Your task to perform on an android device: Is it going to rain tomorrow? Image 0: 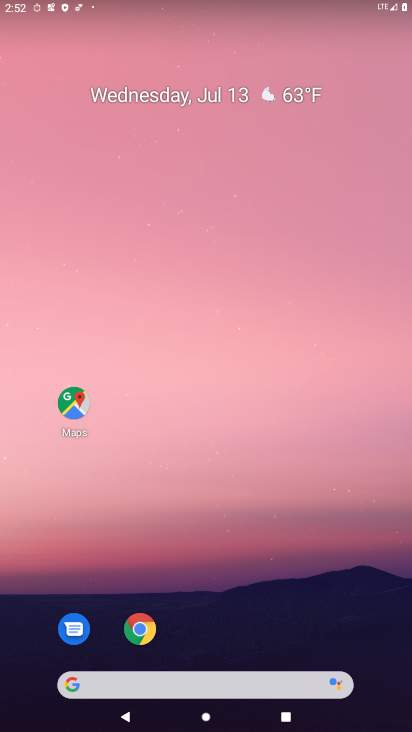
Step 0: click (396, 460)
Your task to perform on an android device: Is it going to rain tomorrow? Image 1: 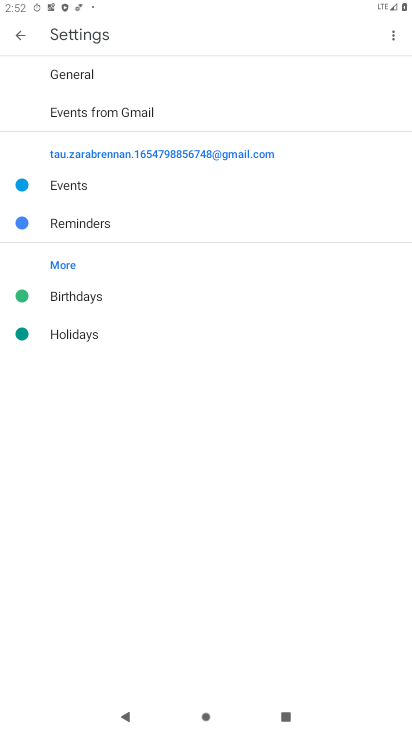
Step 1: click (362, 9)
Your task to perform on an android device: Is it going to rain tomorrow? Image 2: 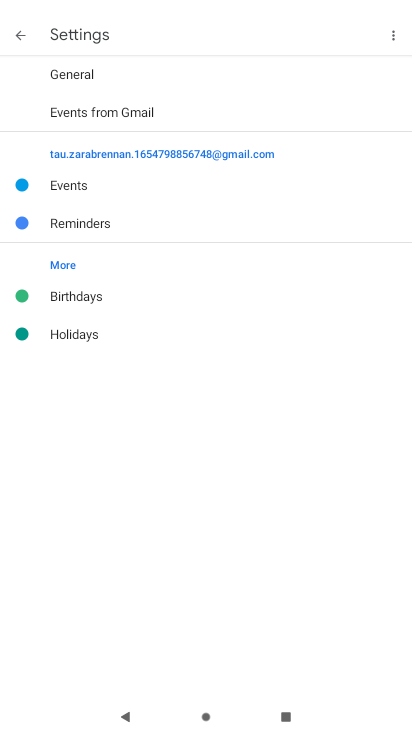
Step 2: press home button
Your task to perform on an android device: Is it going to rain tomorrow? Image 3: 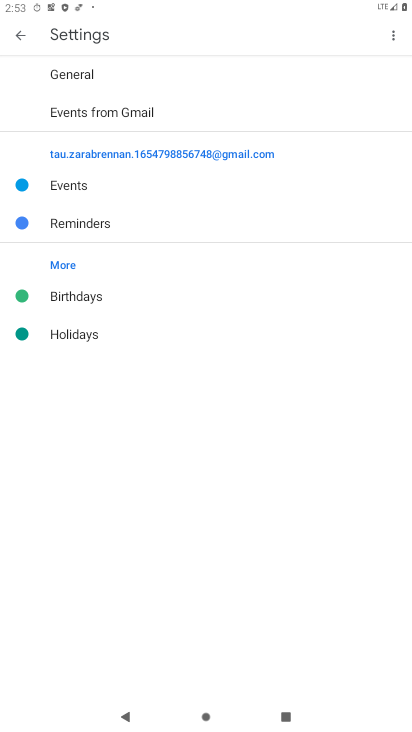
Step 3: press home button
Your task to perform on an android device: Is it going to rain tomorrow? Image 4: 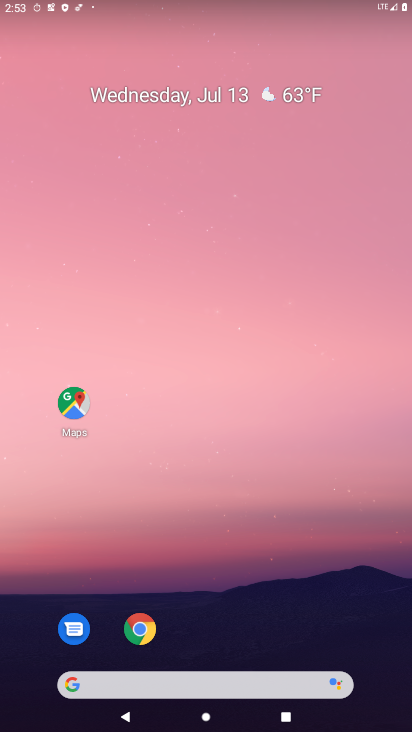
Step 4: drag from (176, 635) to (278, 92)
Your task to perform on an android device: Is it going to rain tomorrow? Image 5: 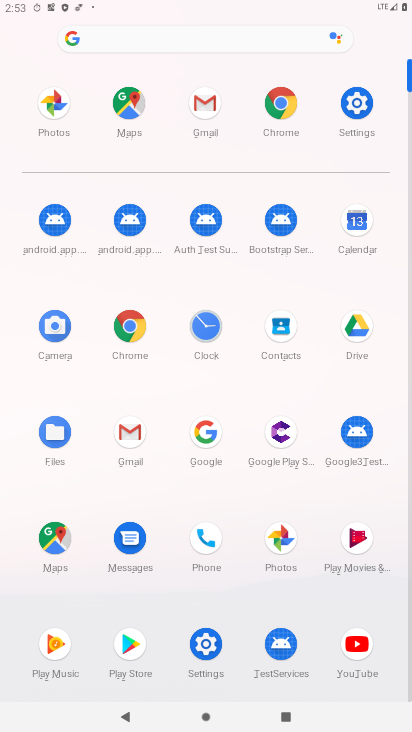
Step 5: click (197, 32)
Your task to perform on an android device: Is it going to rain tomorrow? Image 6: 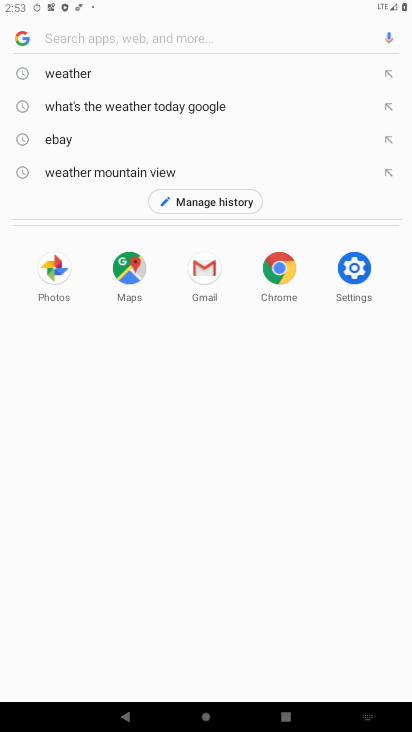
Step 6: type "is it going to rain tomorrow"
Your task to perform on an android device: Is it going to rain tomorrow? Image 7: 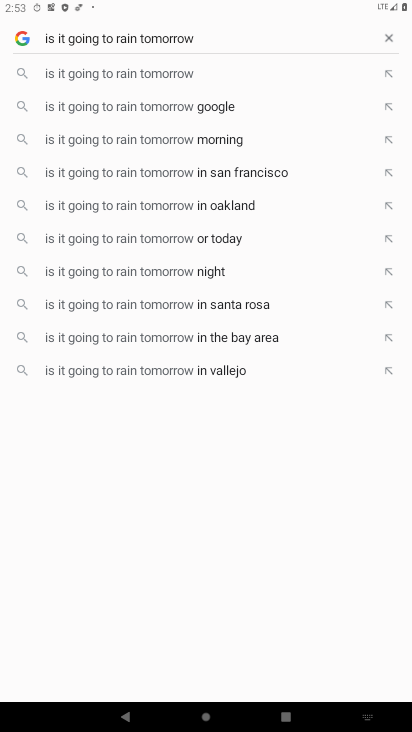
Step 7: click (123, 78)
Your task to perform on an android device: Is it going to rain tomorrow? Image 8: 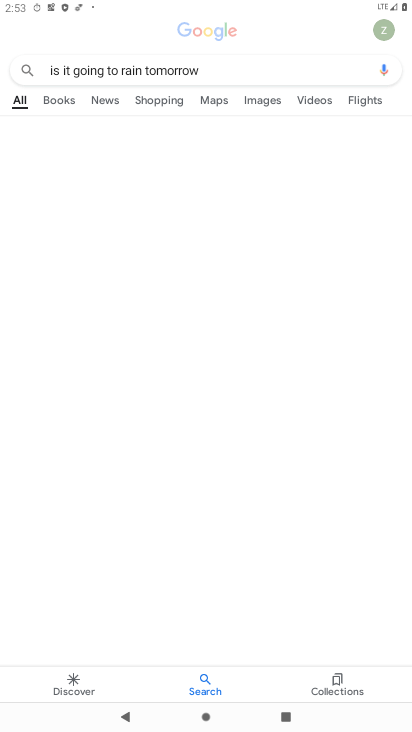
Step 8: drag from (233, 553) to (346, 113)
Your task to perform on an android device: Is it going to rain tomorrow? Image 9: 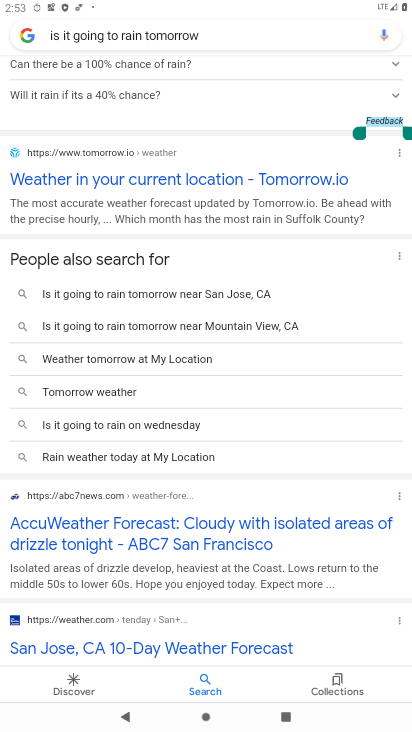
Step 9: drag from (234, 441) to (335, 146)
Your task to perform on an android device: Is it going to rain tomorrow? Image 10: 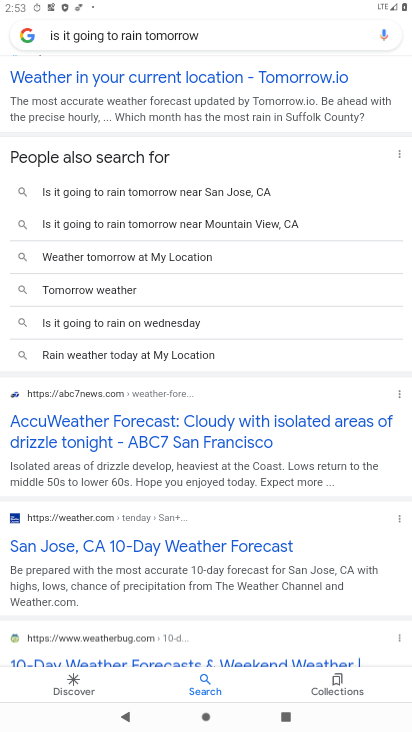
Step 10: drag from (269, 182) to (290, 713)
Your task to perform on an android device: Is it going to rain tomorrow? Image 11: 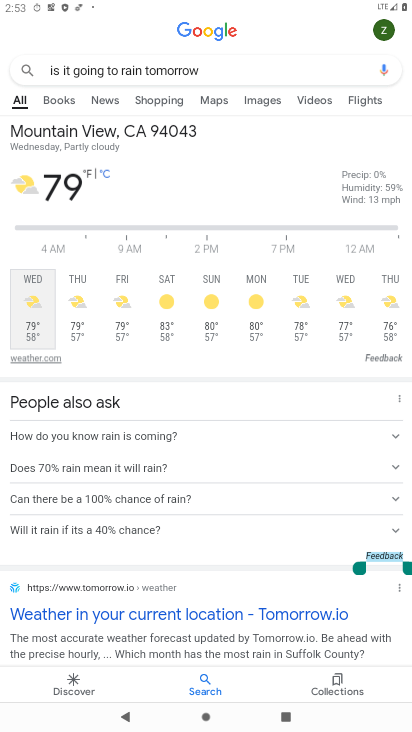
Step 11: drag from (185, 583) to (232, 407)
Your task to perform on an android device: Is it going to rain tomorrow? Image 12: 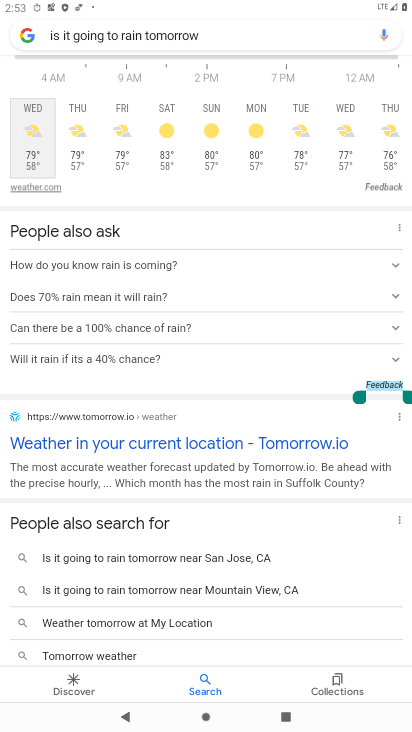
Step 12: click (213, 487)
Your task to perform on an android device: Is it going to rain tomorrow? Image 13: 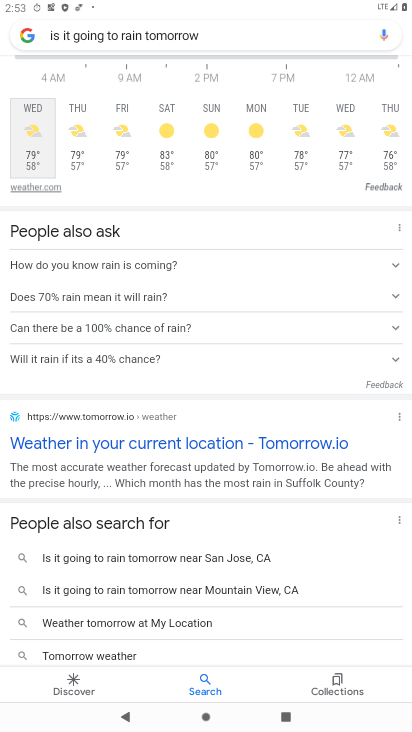
Step 13: drag from (231, 490) to (317, 268)
Your task to perform on an android device: Is it going to rain tomorrow? Image 14: 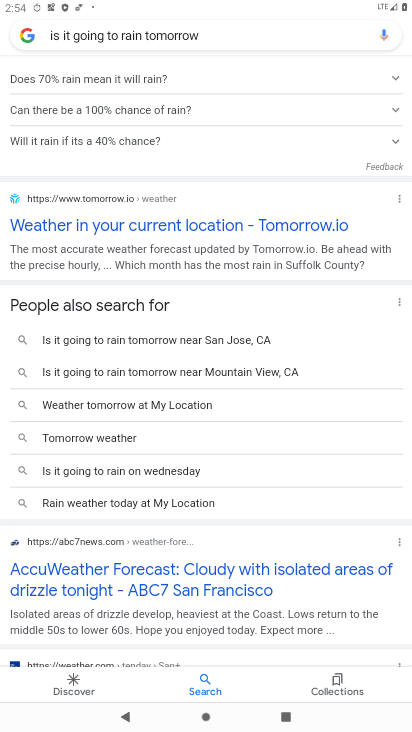
Step 14: click (182, 230)
Your task to perform on an android device: Is it going to rain tomorrow? Image 15: 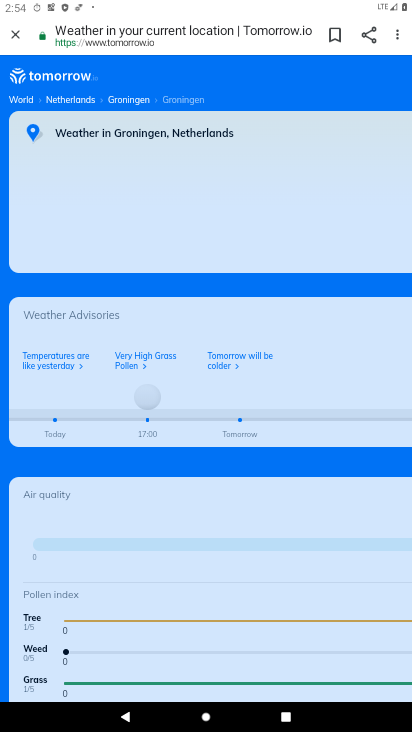
Step 15: drag from (166, 117) to (271, 510)
Your task to perform on an android device: Is it going to rain tomorrow? Image 16: 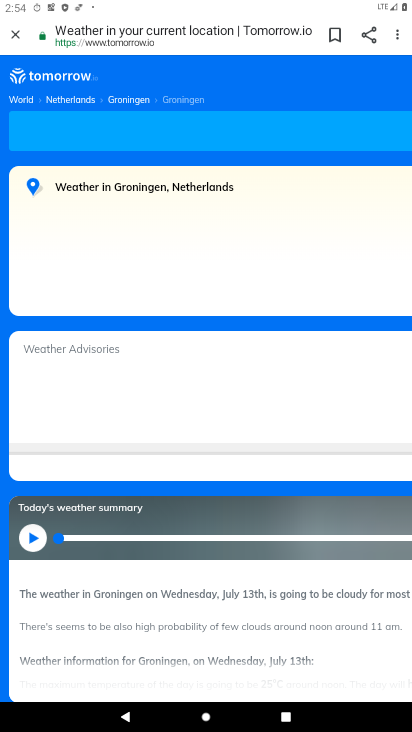
Step 16: click (12, 32)
Your task to perform on an android device: Is it going to rain tomorrow? Image 17: 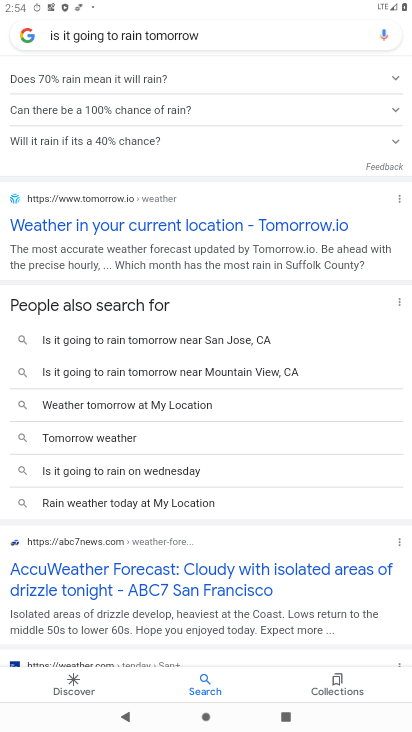
Step 17: task complete